Your task to perform on an android device: open app "LiveIn - Share Your Moment" Image 0: 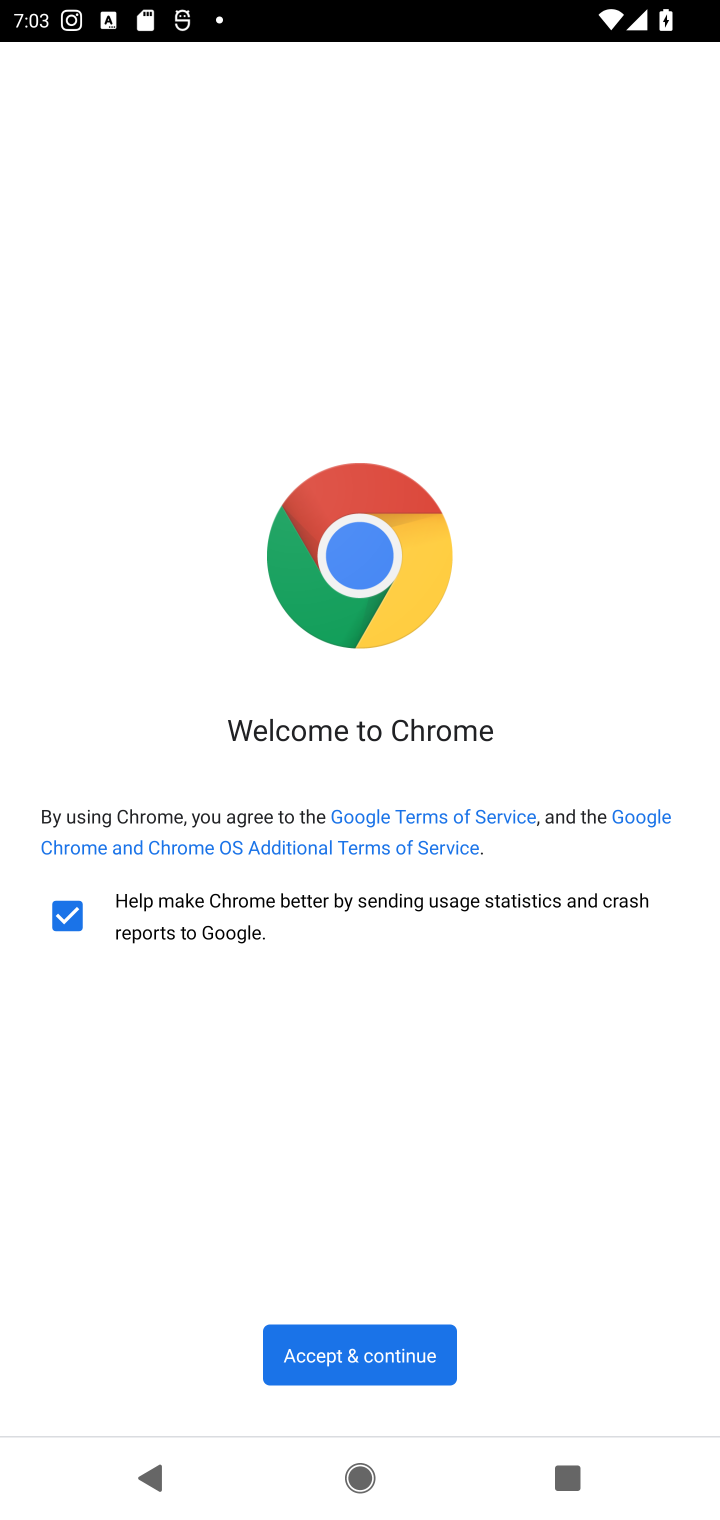
Step 0: press home button
Your task to perform on an android device: open app "LiveIn - Share Your Moment" Image 1: 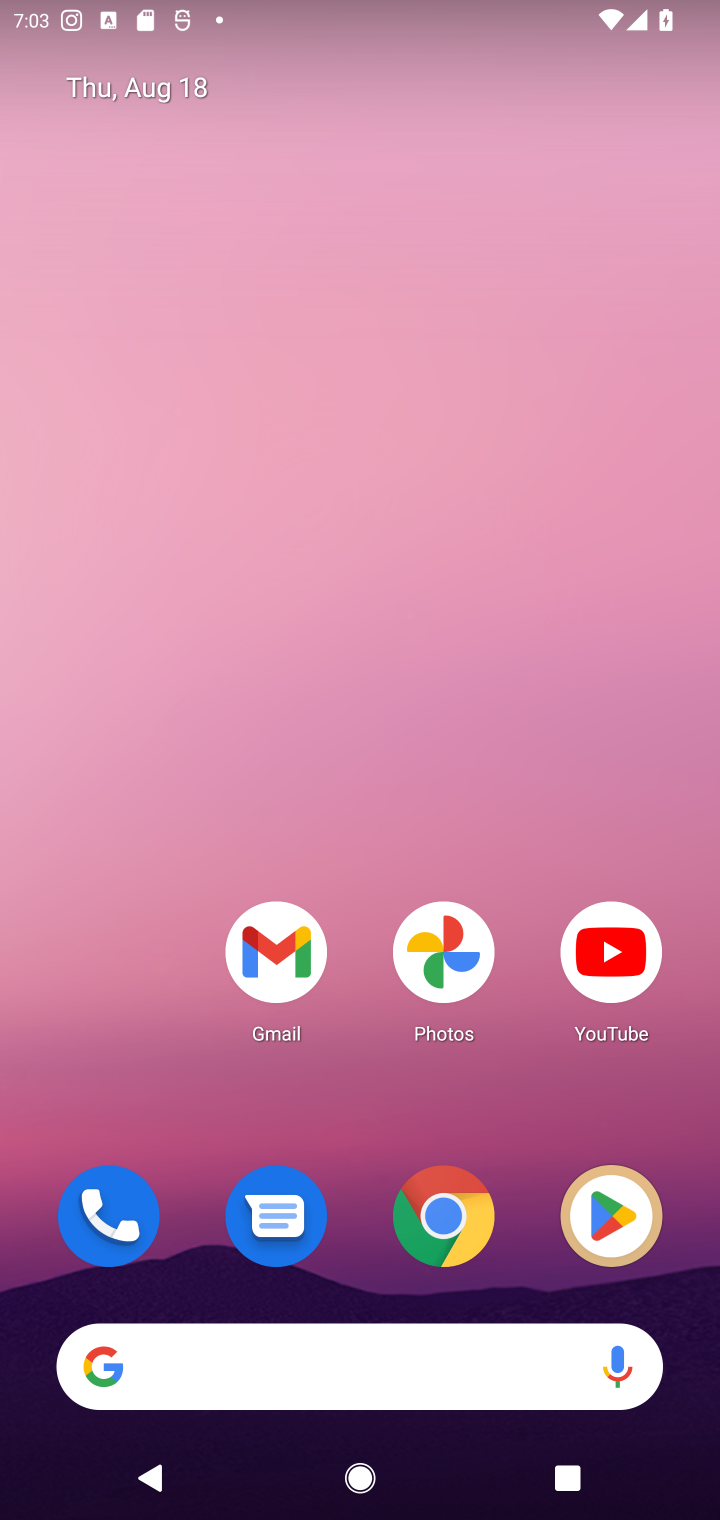
Step 1: click (605, 1191)
Your task to perform on an android device: open app "LiveIn - Share Your Moment" Image 2: 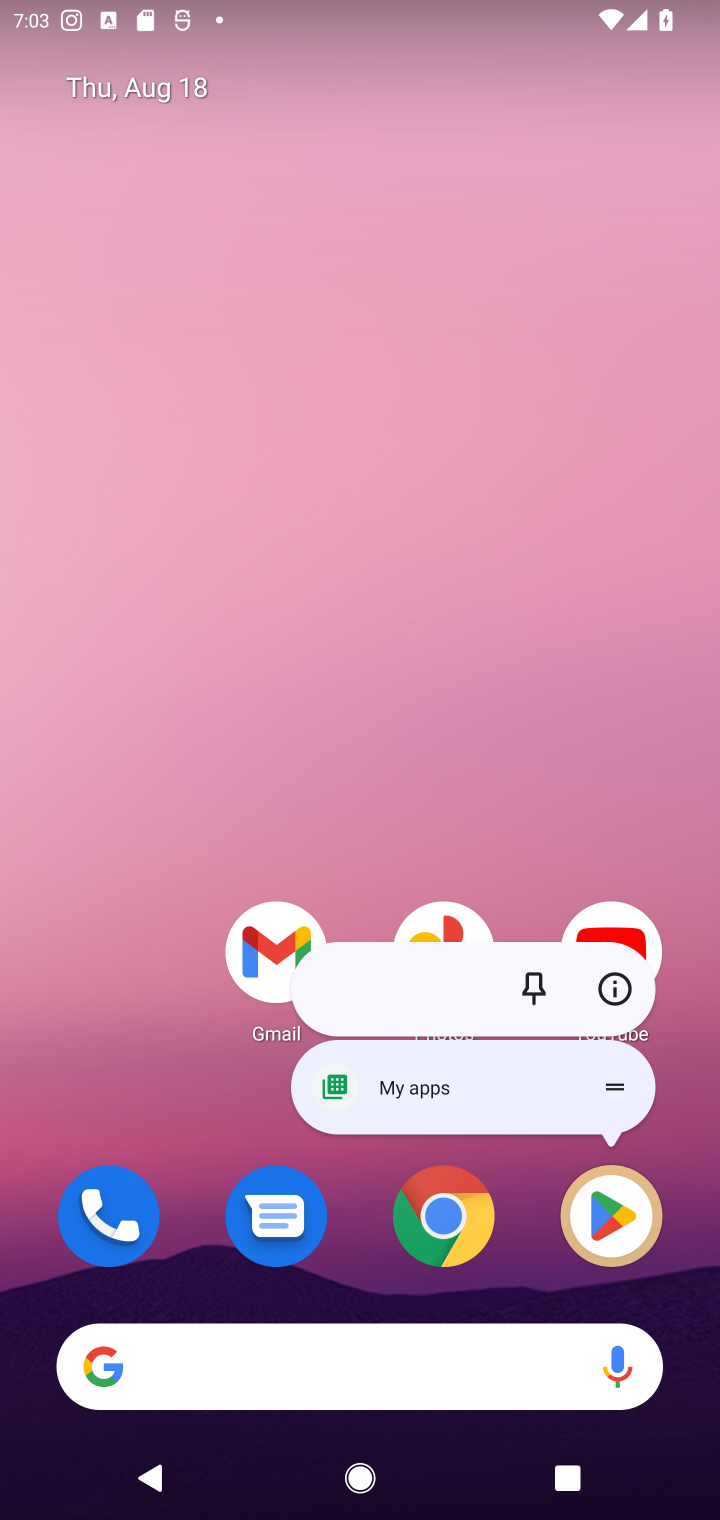
Step 2: click (595, 1195)
Your task to perform on an android device: open app "LiveIn - Share Your Moment" Image 3: 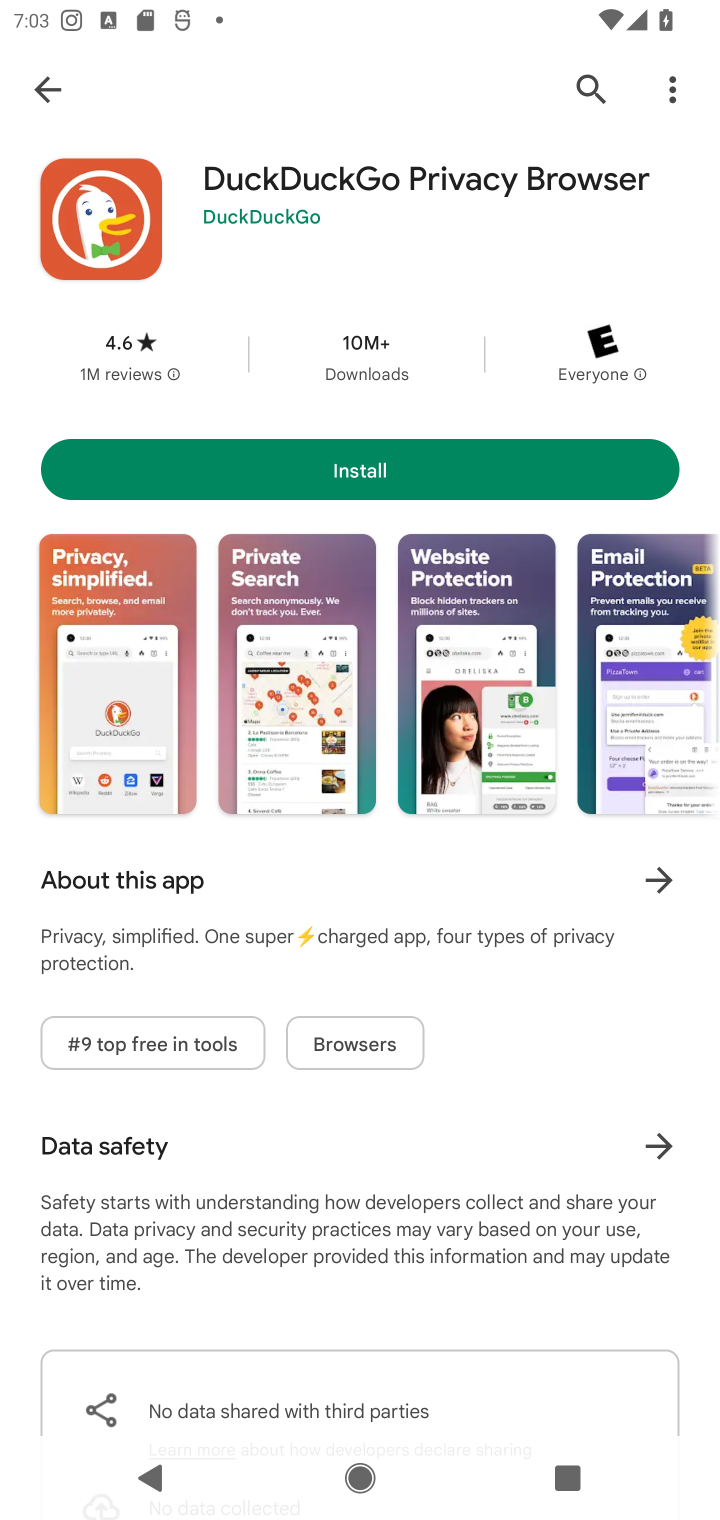
Step 3: click (571, 65)
Your task to perform on an android device: open app "LiveIn - Share Your Moment" Image 4: 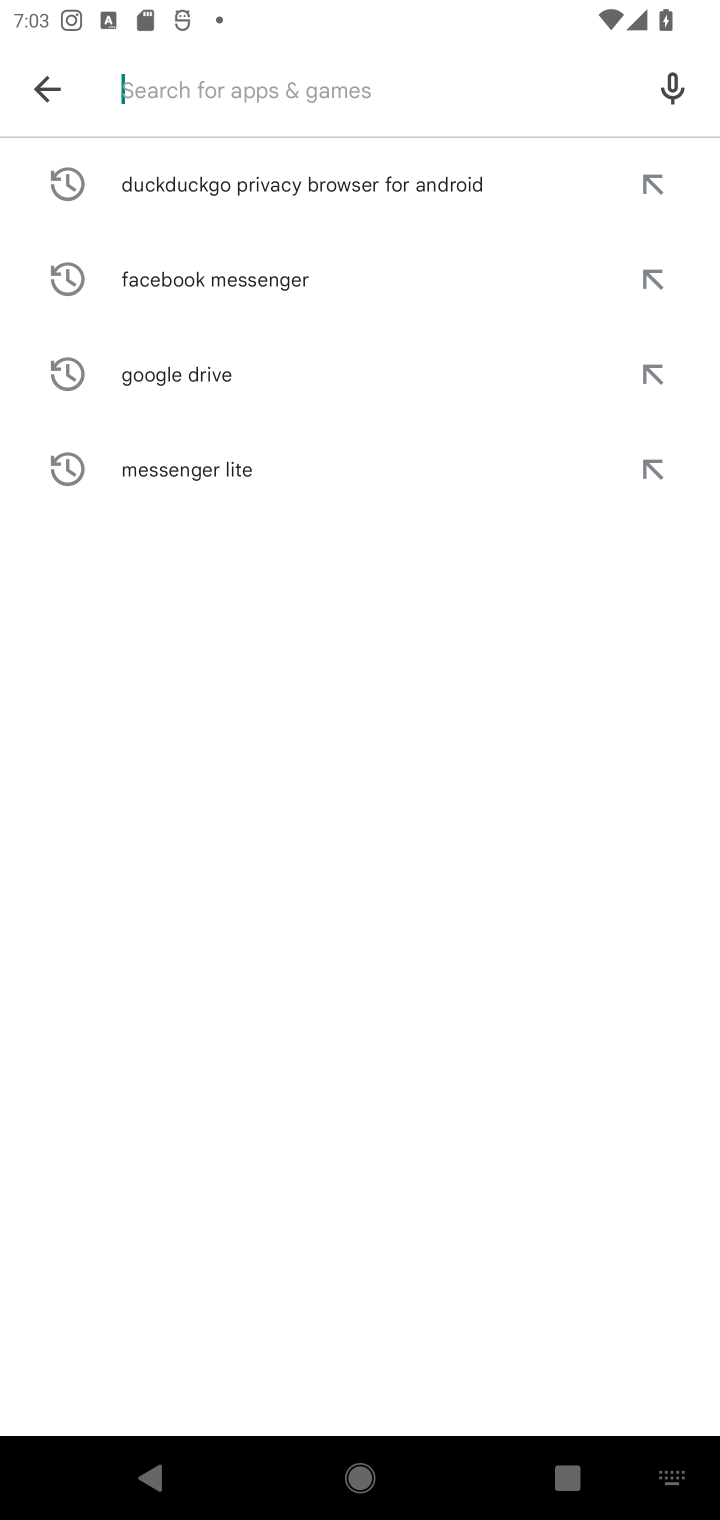
Step 4: type "LiveIn - Share Your Moment"
Your task to perform on an android device: open app "LiveIn - Share Your Moment" Image 5: 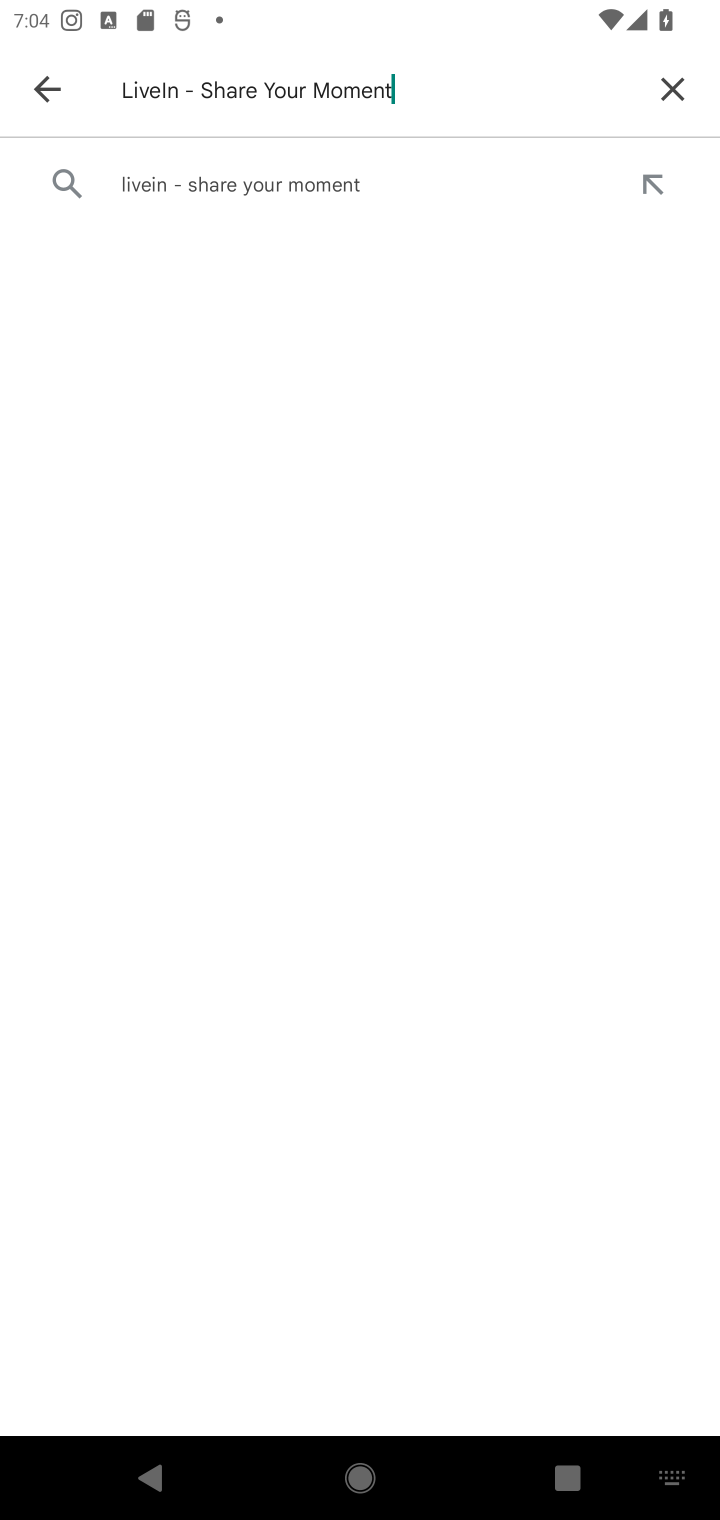
Step 5: click (219, 175)
Your task to perform on an android device: open app "LiveIn - Share Your Moment" Image 6: 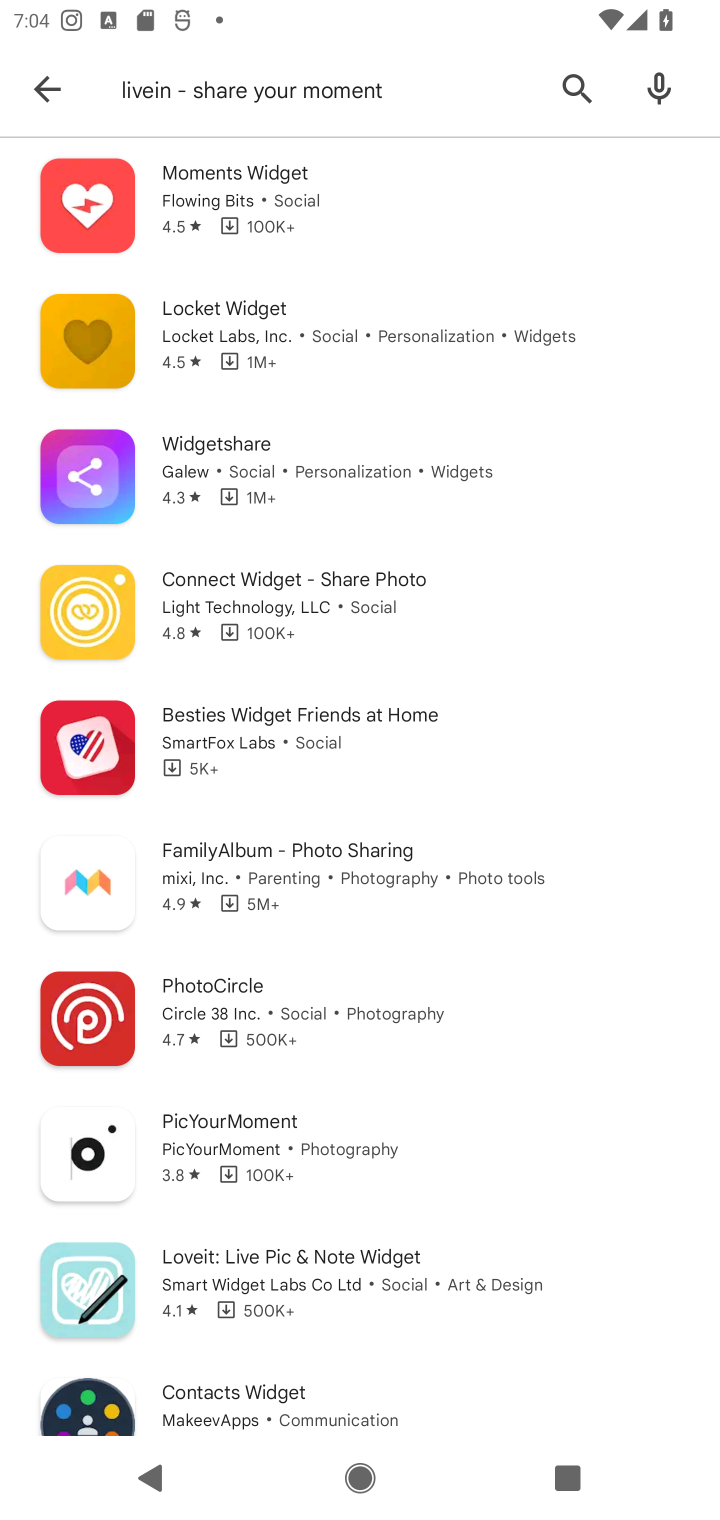
Step 6: task complete